Your task to perform on an android device: find which apps use the phone's location Image 0: 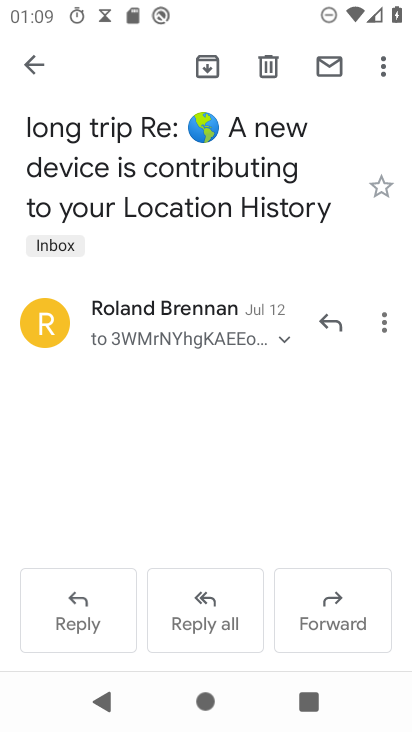
Step 0: press home button
Your task to perform on an android device: find which apps use the phone's location Image 1: 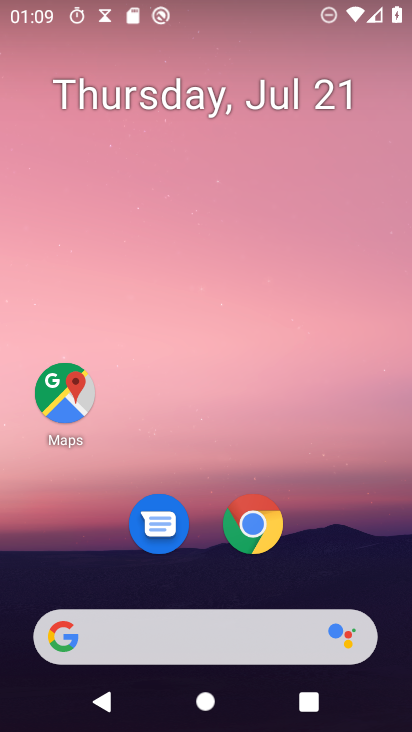
Step 1: drag from (241, 638) to (198, 172)
Your task to perform on an android device: find which apps use the phone's location Image 2: 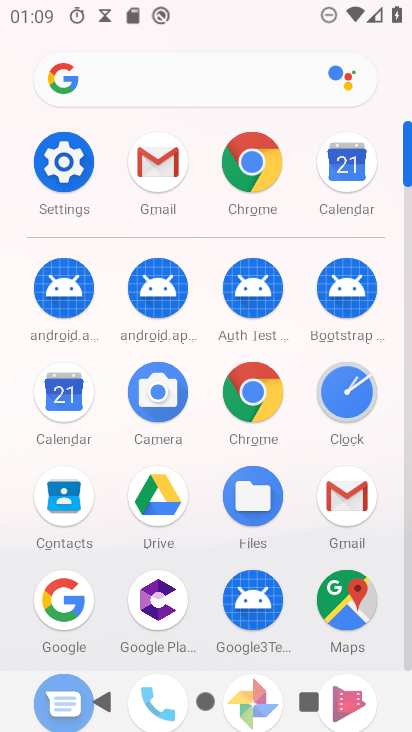
Step 2: click (73, 172)
Your task to perform on an android device: find which apps use the phone's location Image 3: 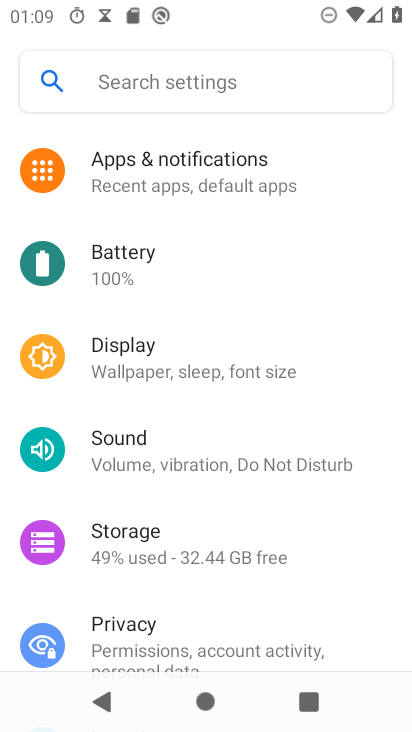
Step 3: drag from (324, 508) to (264, 172)
Your task to perform on an android device: find which apps use the phone's location Image 4: 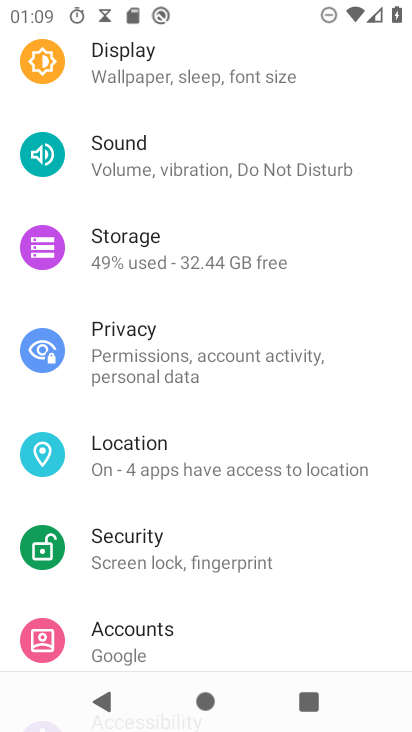
Step 4: click (147, 456)
Your task to perform on an android device: find which apps use the phone's location Image 5: 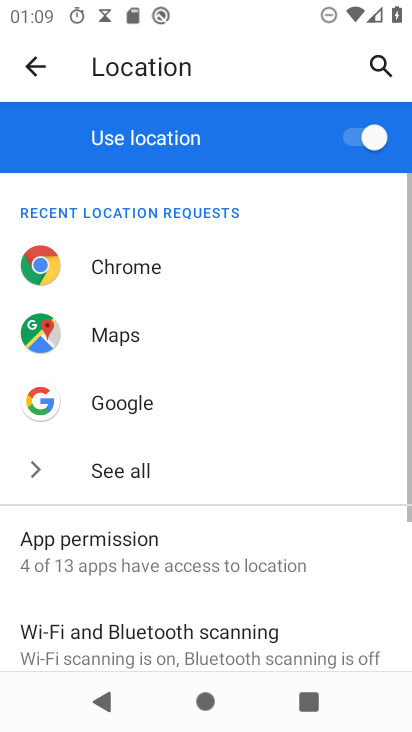
Step 5: click (141, 540)
Your task to perform on an android device: find which apps use the phone's location Image 6: 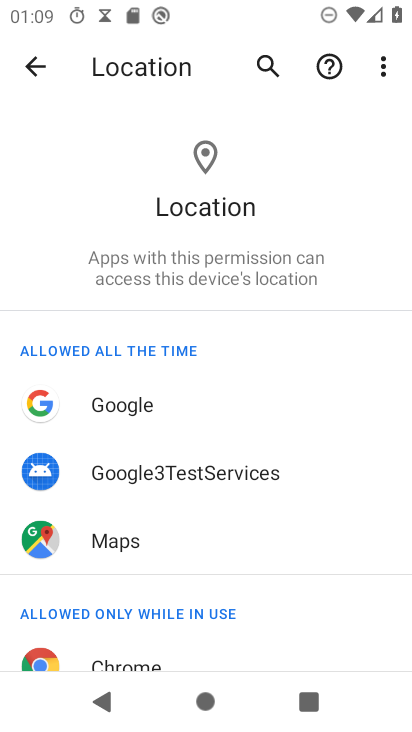
Step 6: drag from (215, 568) to (243, 69)
Your task to perform on an android device: find which apps use the phone's location Image 7: 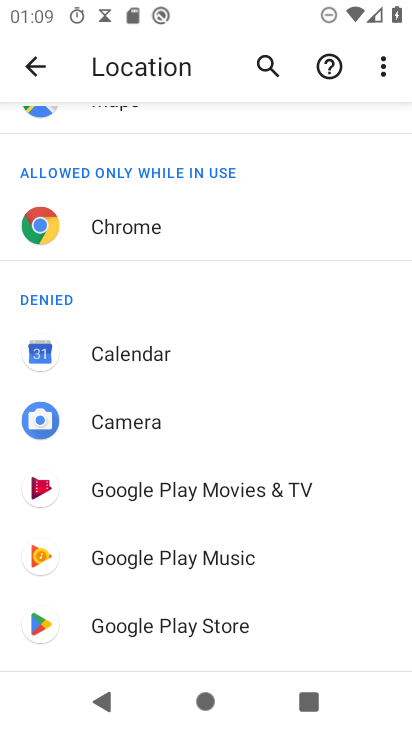
Step 7: drag from (278, 587) to (307, 293)
Your task to perform on an android device: find which apps use the phone's location Image 8: 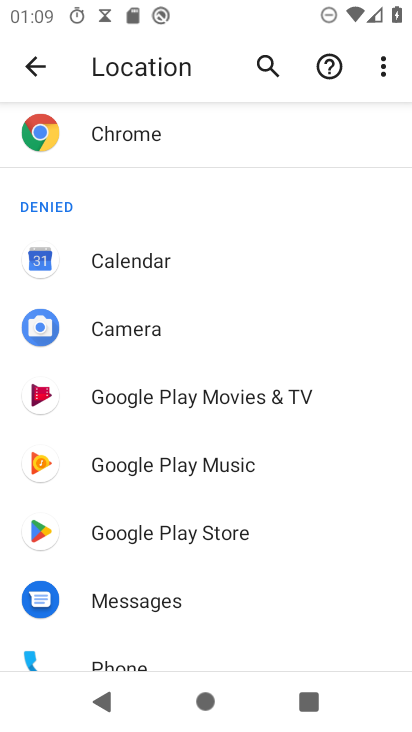
Step 8: drag from (177, 604) to (209, 199)
Your task to perform on an android device: find which apps use the phone's location Image 9: 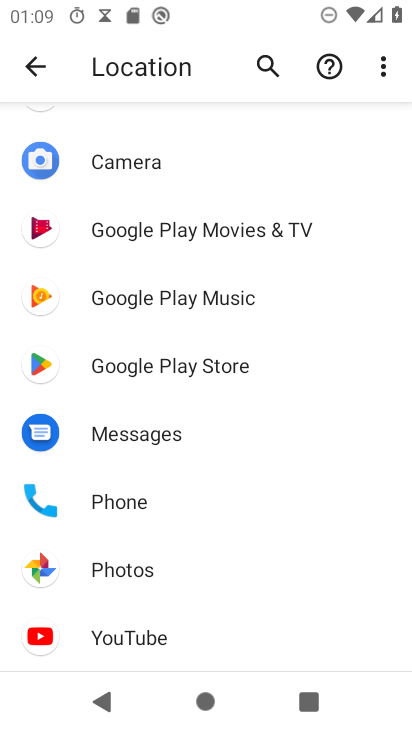
Step 9: click (107, 501)
Your task to perform on an android device: find which apps use the phone's location Image 10: 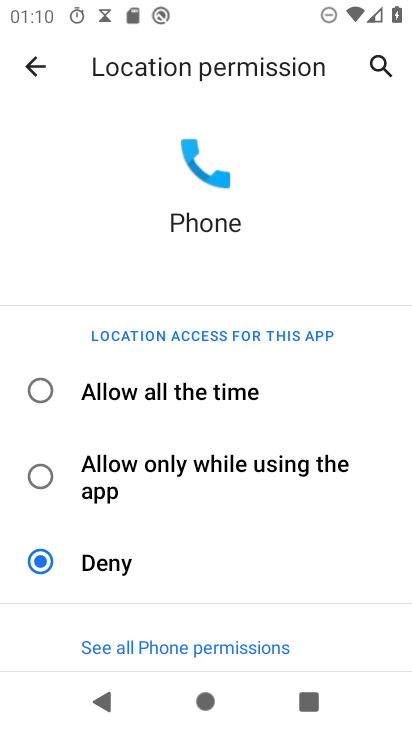
Step 10: task complete